Your task to perform on an android device: Open the calendar and show me this week's events? Image 0: 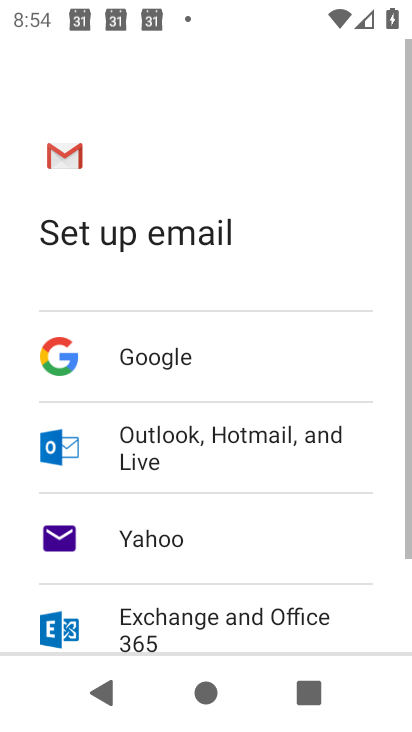
Step 0: press home button
Your task to perform on an android device: Open the calendar and show me this week's events? Image 1: 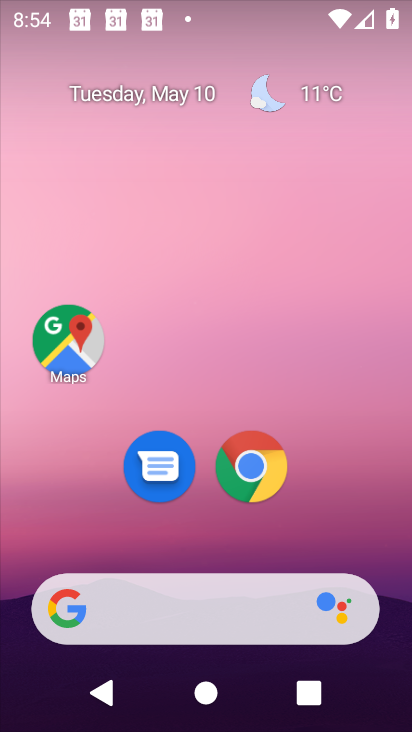
Step 1: drag from (220, 543) to (260, 34)
Your task to perform on an android device: Open the calendar and show me this week's events? Image 2: 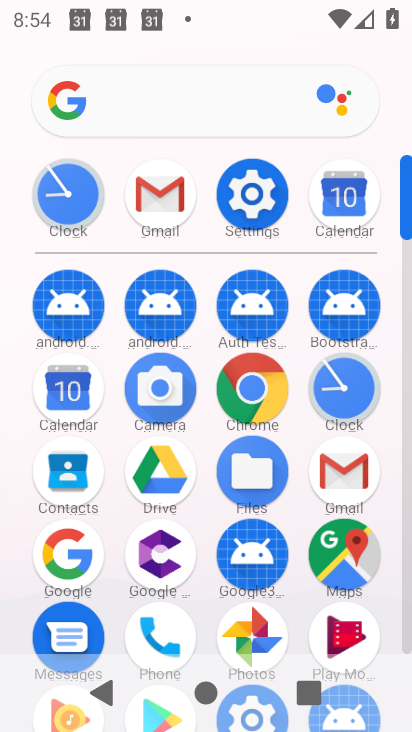
Step 2: click (72, 412)
Your task to perform on an android device: Open the calendar and show me this week's events? Image 3: 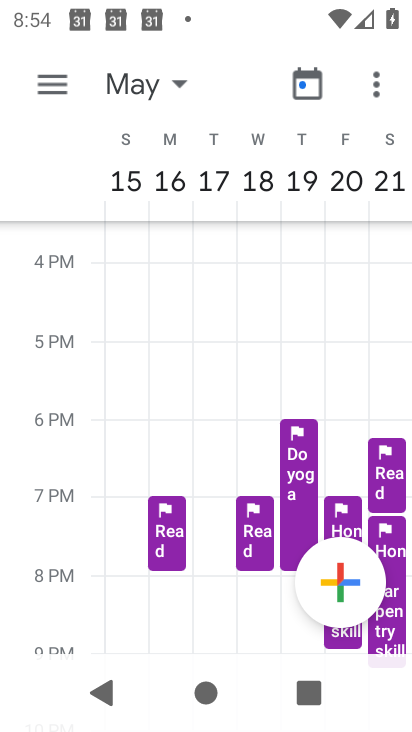
Step 3: task complete